Your task to perform on an android device: What's on my calendar today? Image 0: 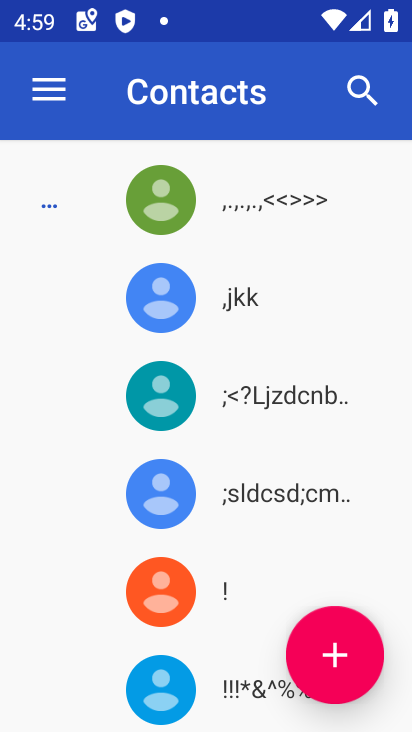
Step 0: press home button
Your task to perform on an android device: What's on my calendar today? Image 1: 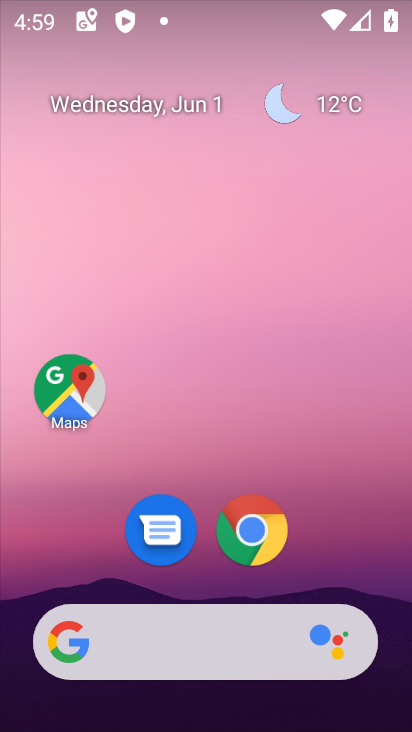
Step 1: drag from (264, 583) to (191, 226)
Your task to perform on an android device: What's on my calendar today? Image 2: 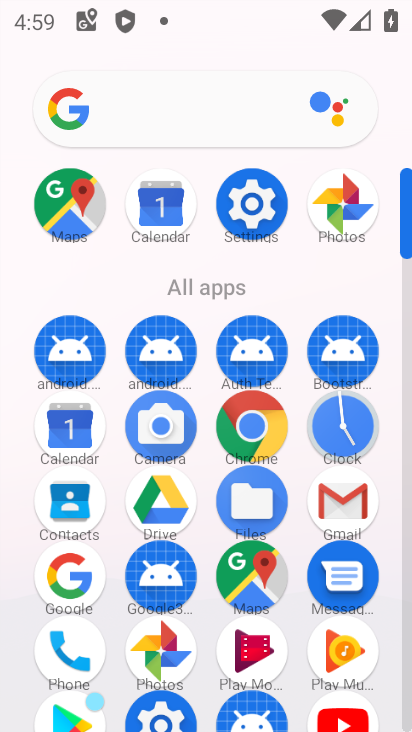
Step 2: click (71, 439)
Your task to perform on an android device: What's on my calendar today? Image 3: 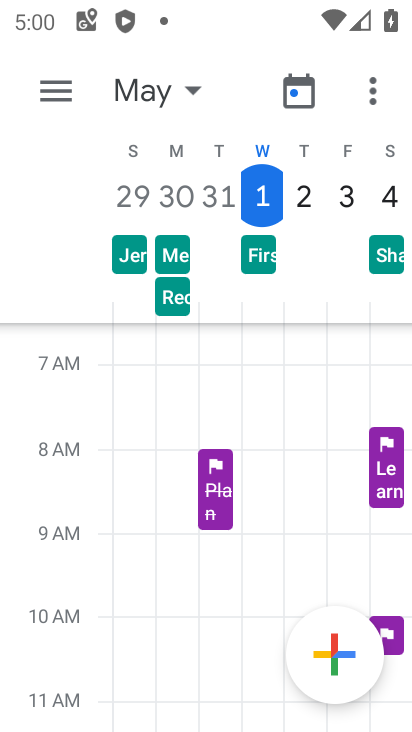
Step 3: click (48, 96)
Your task to perform on an android device: What's on my calendar today? Image 4: 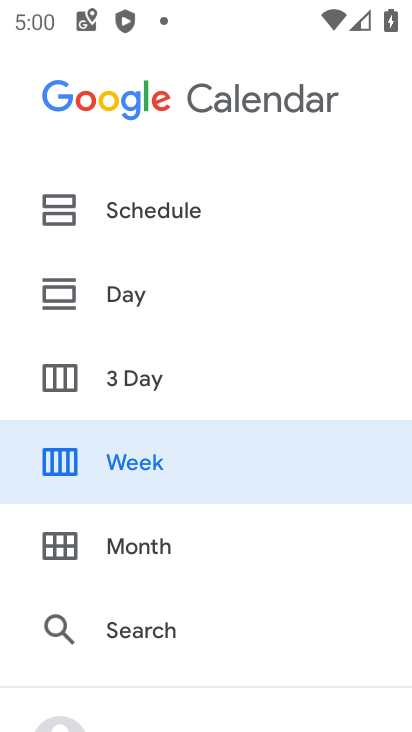
Step 4: click (146, 218)
Your task to perform on an android device: What's on my calendar today? Image 5: 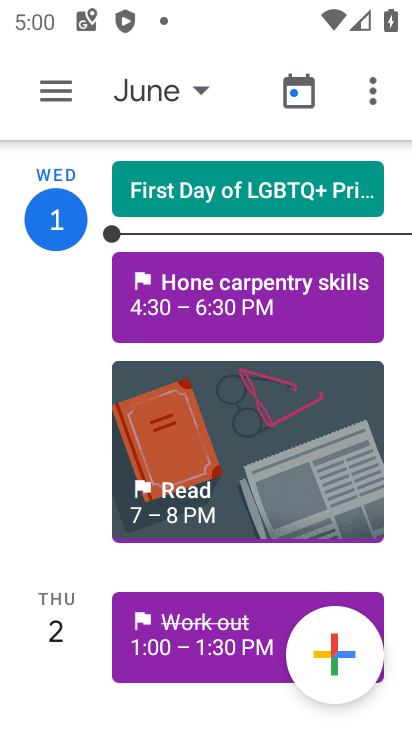
Step 5: task complete